Your task to perform on an android device: Show me recent news Image 0: 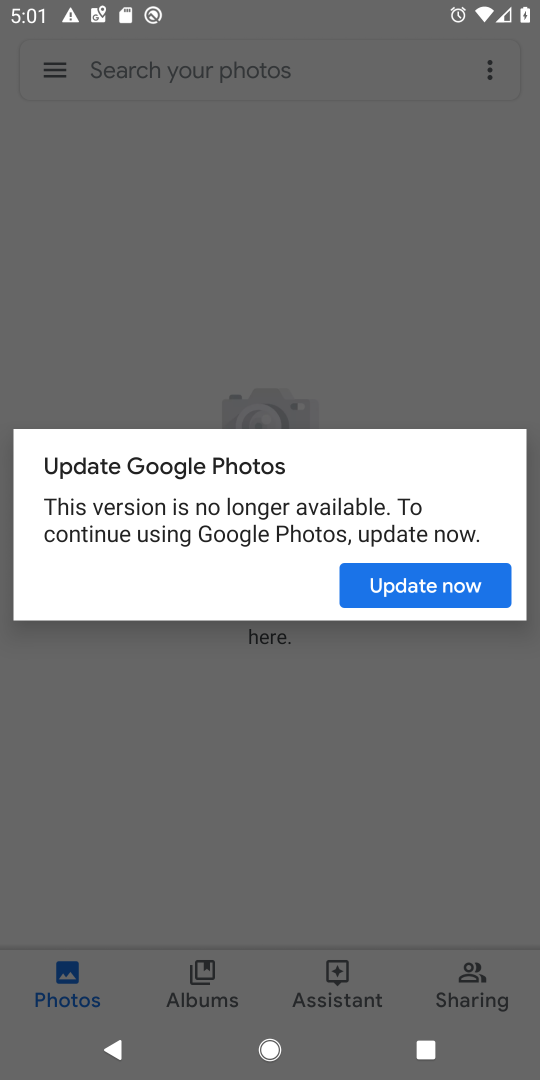
Step 0: press back button
Your task to perform on an android device: Show me recent news Image 1: 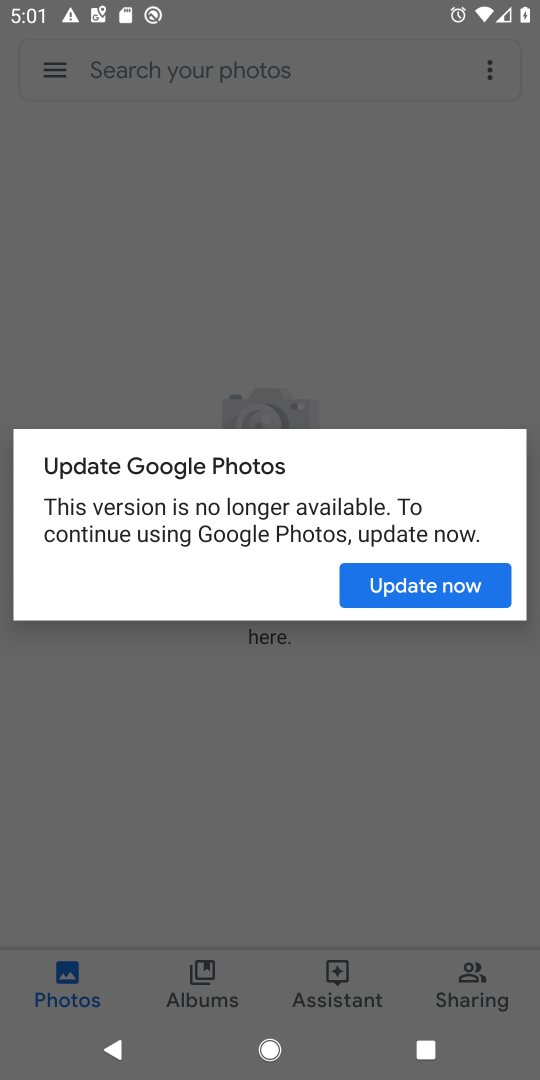
Step 1: press home button
Your task to perform on an android device: Show me recent news Image 2: 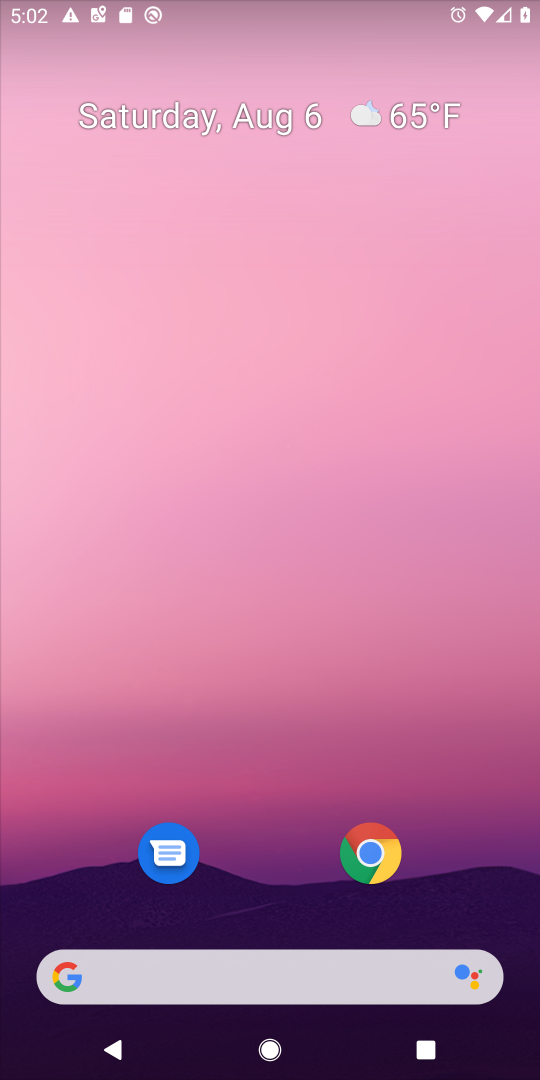
Step 2: click (251, 972)
Your task to perform on an android device: Show me recent news Image 3: 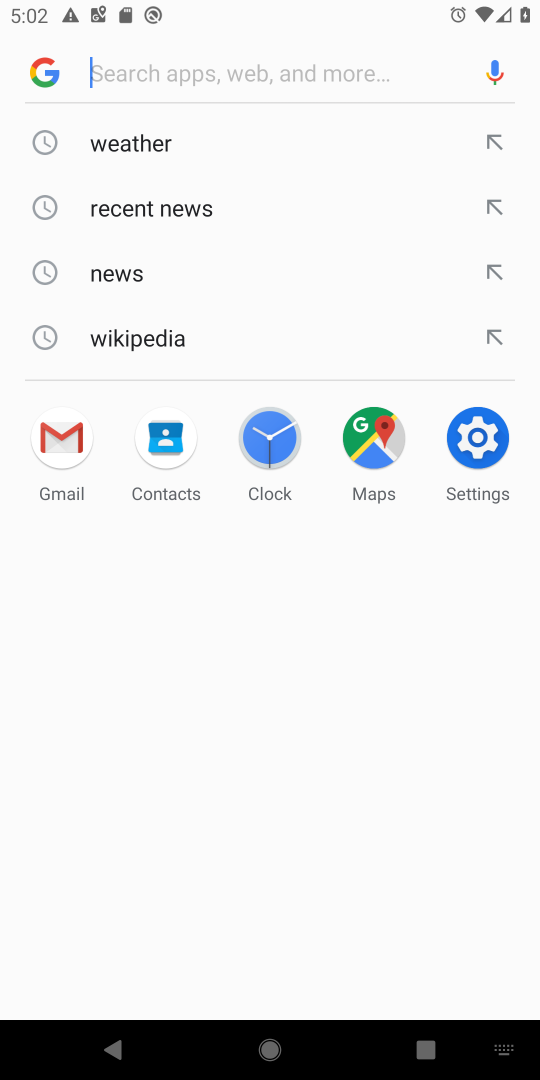
Step 3: click (162, 208)
Your task to perform on an android device: Show me recent news Image 4: 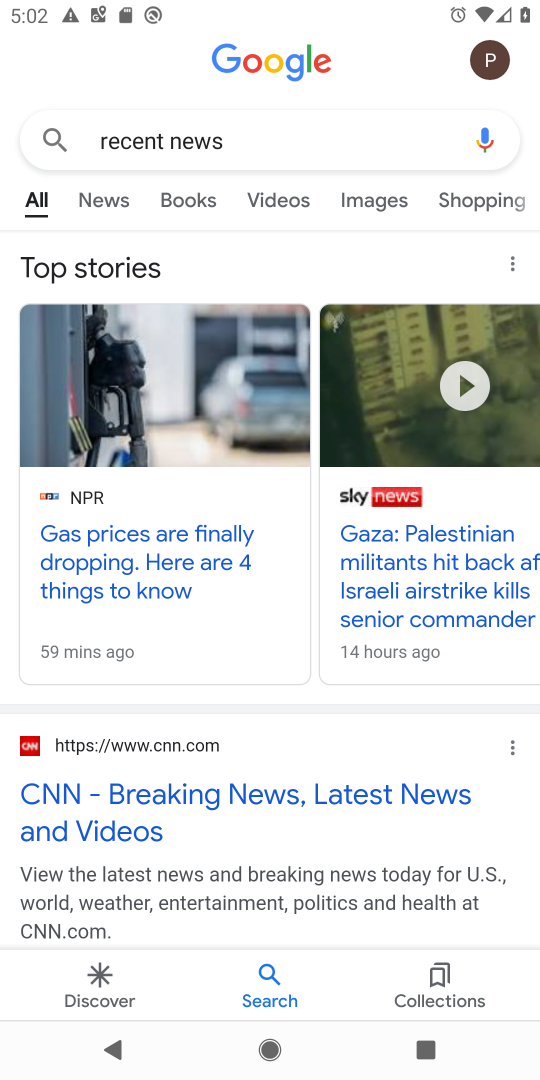
Step 4: task complete